Your task to perform on an android device: Open the calendar app, open the side menu, and click the "Day" option Image 0: 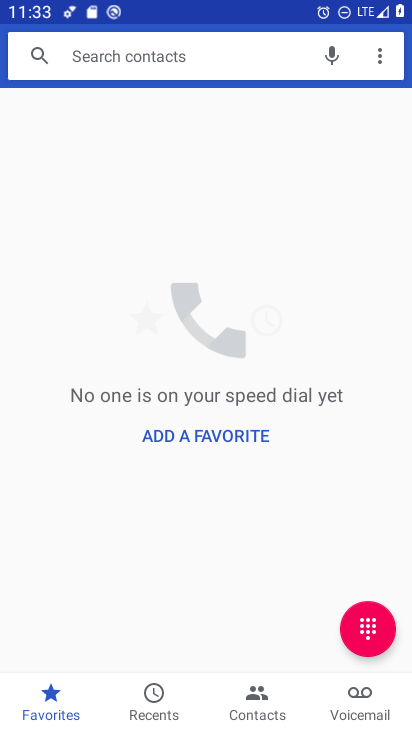
Step 0: press home button
Your task to perform on an android device: Open the calendar app, open the side menu, and click the "Day" option Image 1: 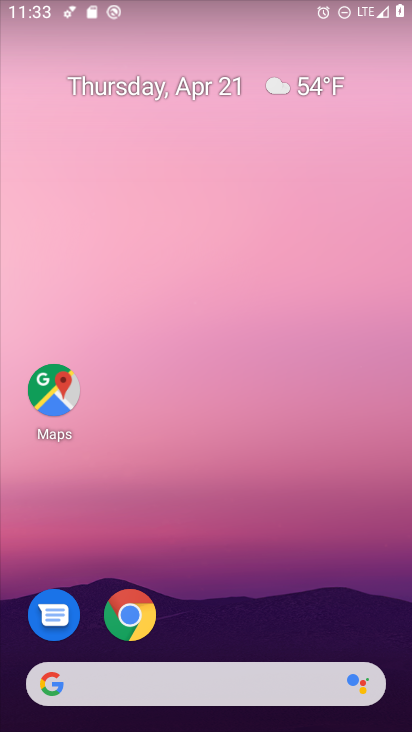
Step 1: drag from (254, 623) to (239, 278)
Your task to perform on an android device: Open the calendar app, open the side menu, and click the "Day" option Image 2: 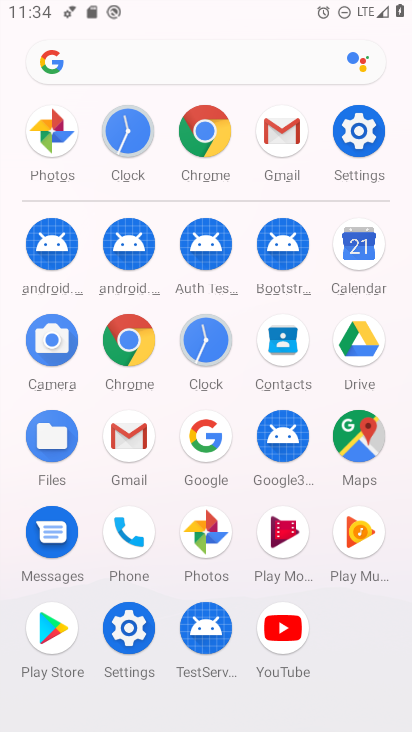
Step 2: click (346, 245)
Your task to perform on an android device: Open the calendar app, open the side menu, and click the "Day" option Image 3: 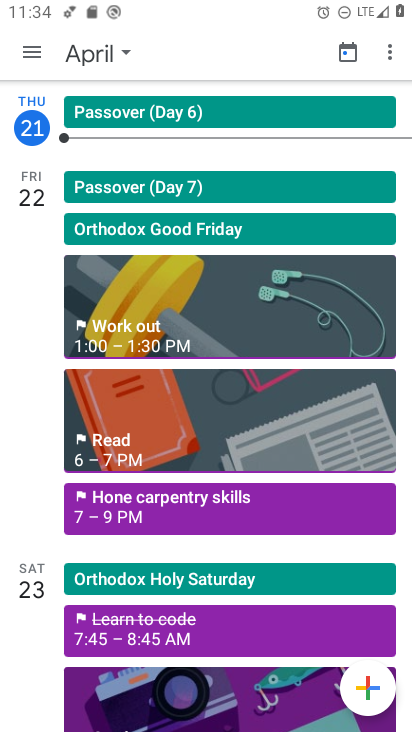
Step 3: click (37, 55)
Your task to perform on an android device: Open the calendar app, open the side menu, and click the "Day" option Image 4: 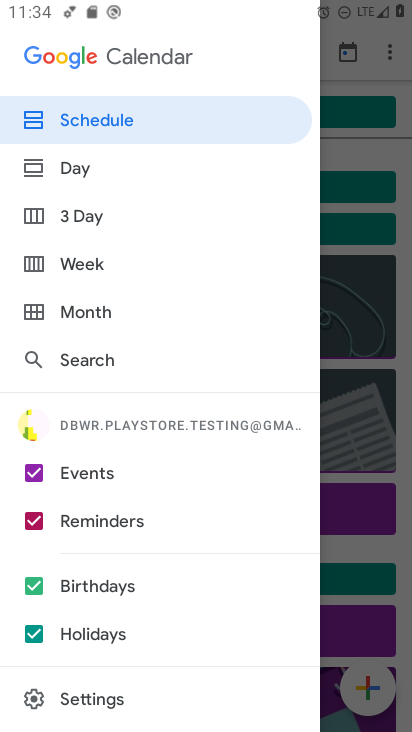
Step 4: click (98, 168)
Your task to perform on an android device: Open the calendar app, open the side menu, and click the "Day" option Image 5: 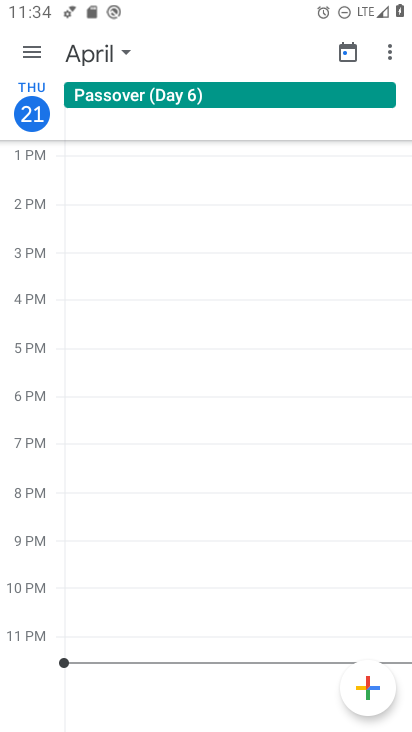
Step 5: task complete